Your task to perform on an android device: What is the news today? Image 0: 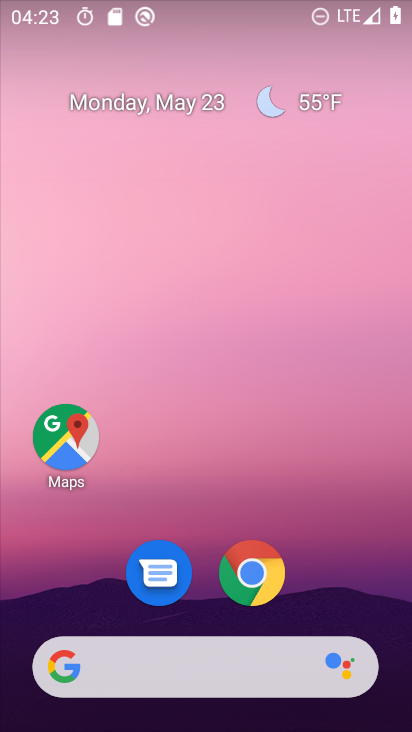
Step 0: click (215, 662)
Your task to perform on an android device: What is the news today? Image 1: 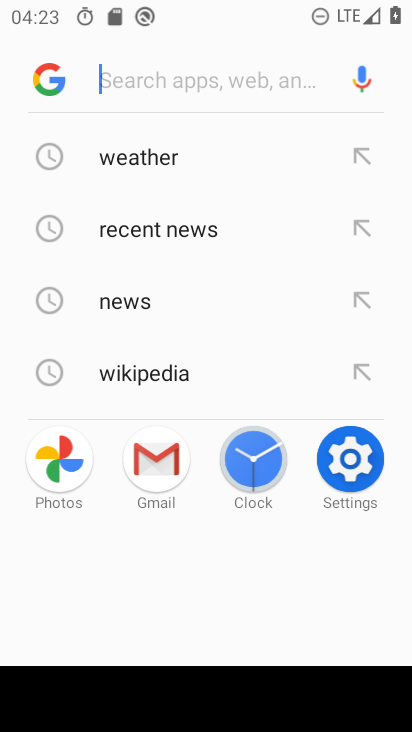
Step 1: type "news today?"
Your task to perform on an android device: What is the news today? Image 2: 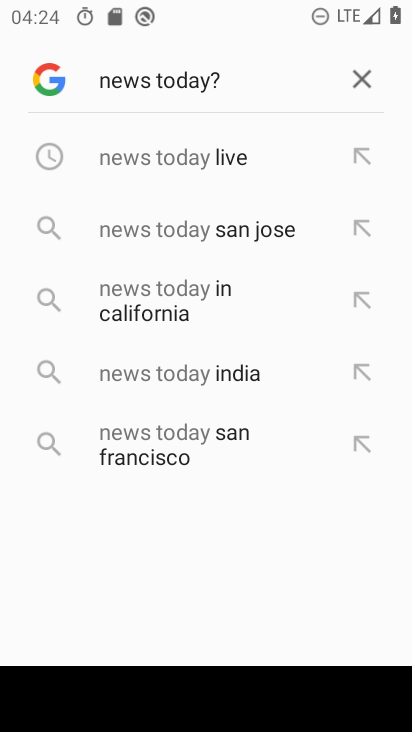
Step 2: click (187, 157)
Your task to perform on an android device: What is the news today? Image 3: 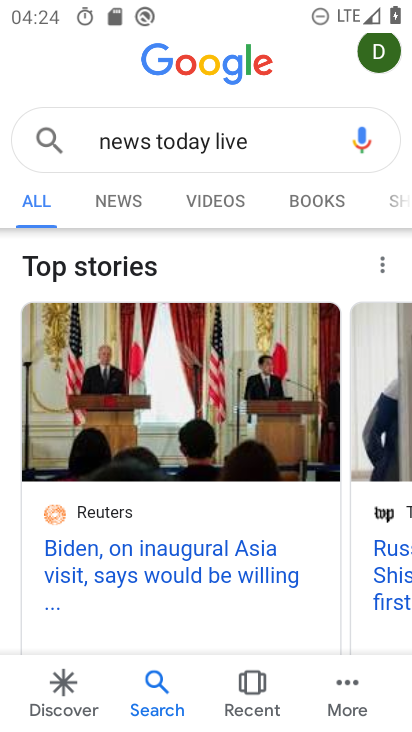
Step 3: click (120, 203)
Your task to perform on an android device: What is the news today? Image 4: 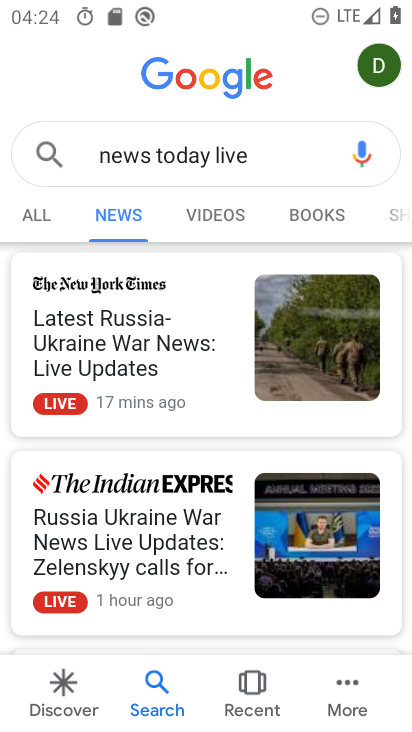
Step 4: task complete